Your task to perform on an android device: turn on sleep mode Image 0: 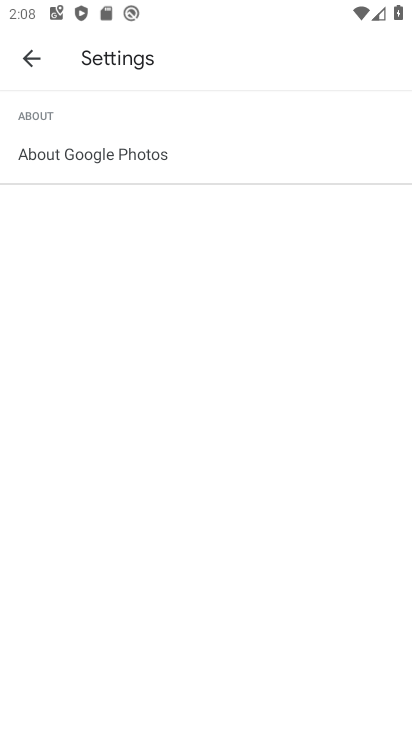
Step 0: press home button
Your task to perform on an android device: turn on sleep mode Image 1: 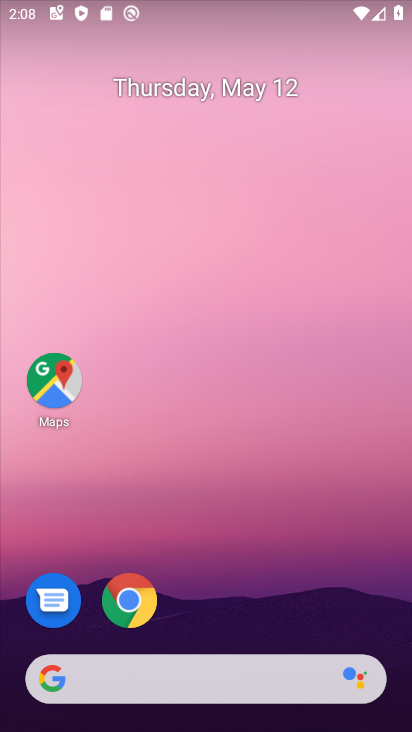
Step 1: drag from (199, 628) to (216, 23)
Your task to perform on an android device: turn on sleep mode Image 2: 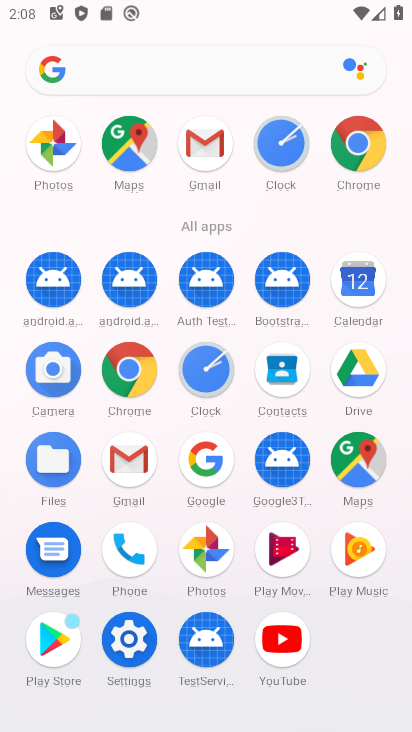
Step 2: click (134, 638)
Your task to perform on an android device: turn on sleep mode Image 3: 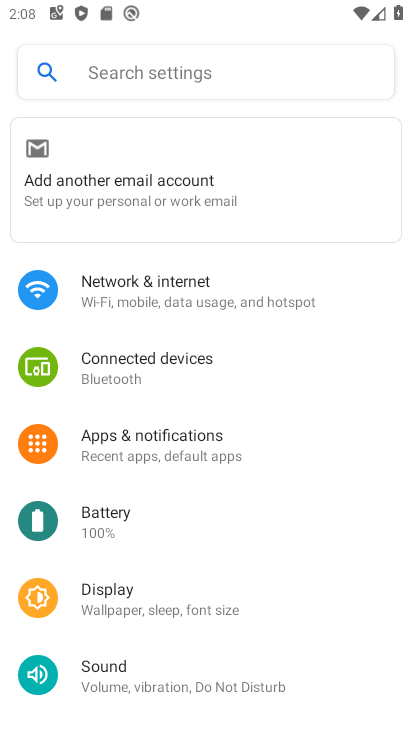
Step 3: click (131, 64)
Your task to perform on an android device: turn on sleep mode Image 4: 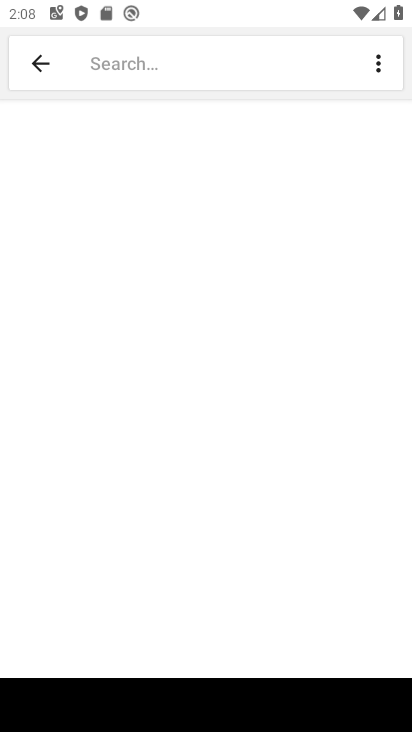
Step 4: type "sleep mode"
Your task to perform on an android device: turn on sleep mode Image 5: 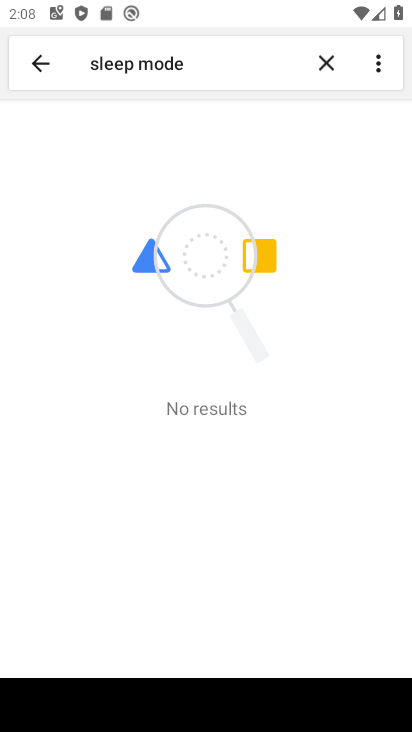
Step 5: task complete